Your task to perform on an android device: Toggle the flashlight Image 0: 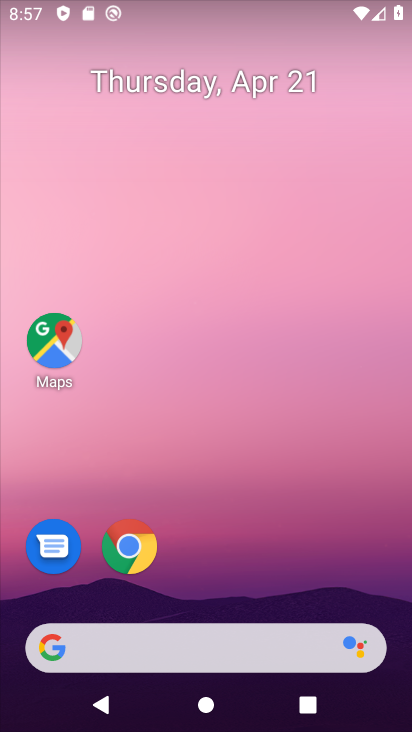
Step 0: drag from (197, 6) to (167, 515)
Your task to perform on an android device: Toggle the flashlight Image 1: 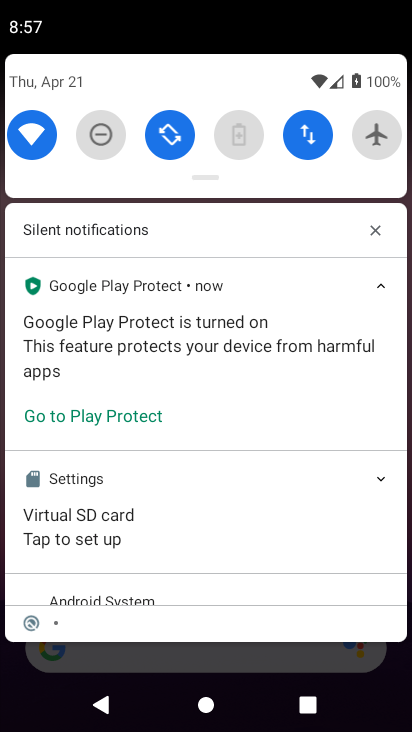
Step 1: task complete